Your task to perform on an android device: delete browsing data in the chrome app Image 0: 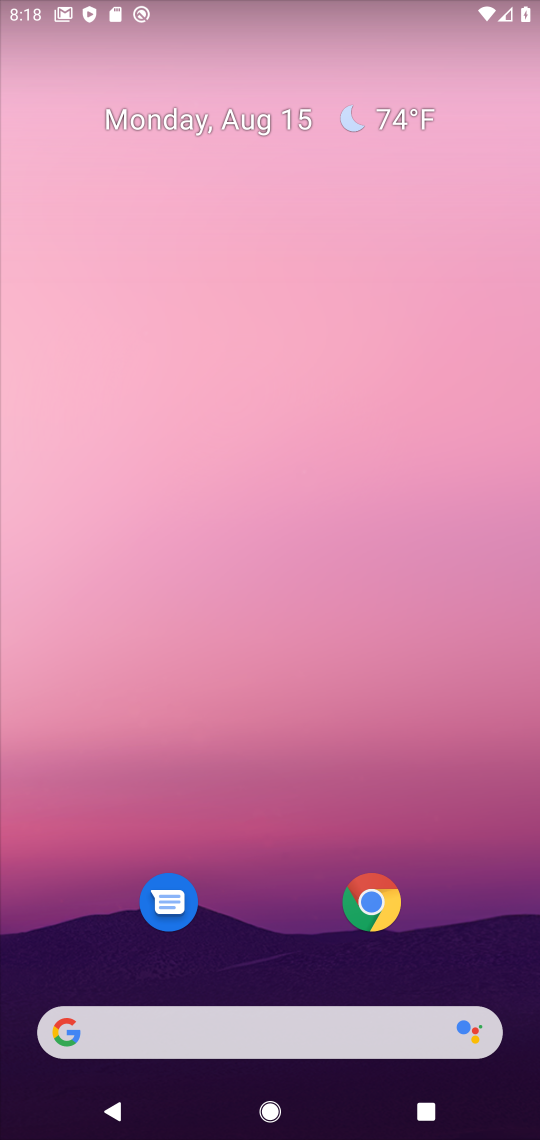
Step 0: drag from (491, 953) to (303, 62)
Your task to perform on an android device: delete browsing data in the chrome app Image 1: 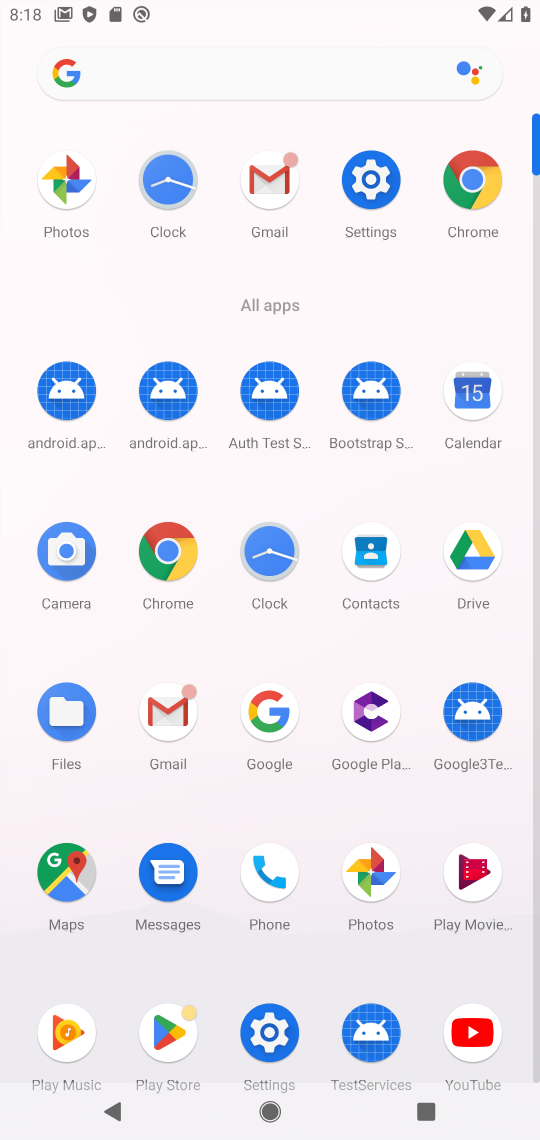
Step 1: click (155, 553)
Your task to perform on an android device: delete browsing data in the chrome app Image 2: 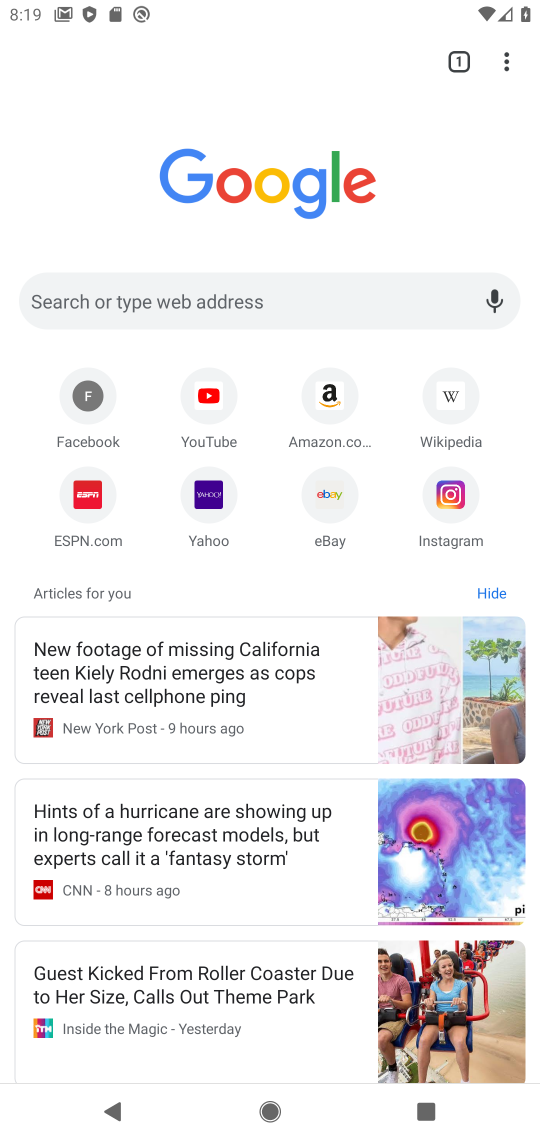
Step 2: press home button
Your task to perform on an android device: delete browsing data in the chrome app Image 3: 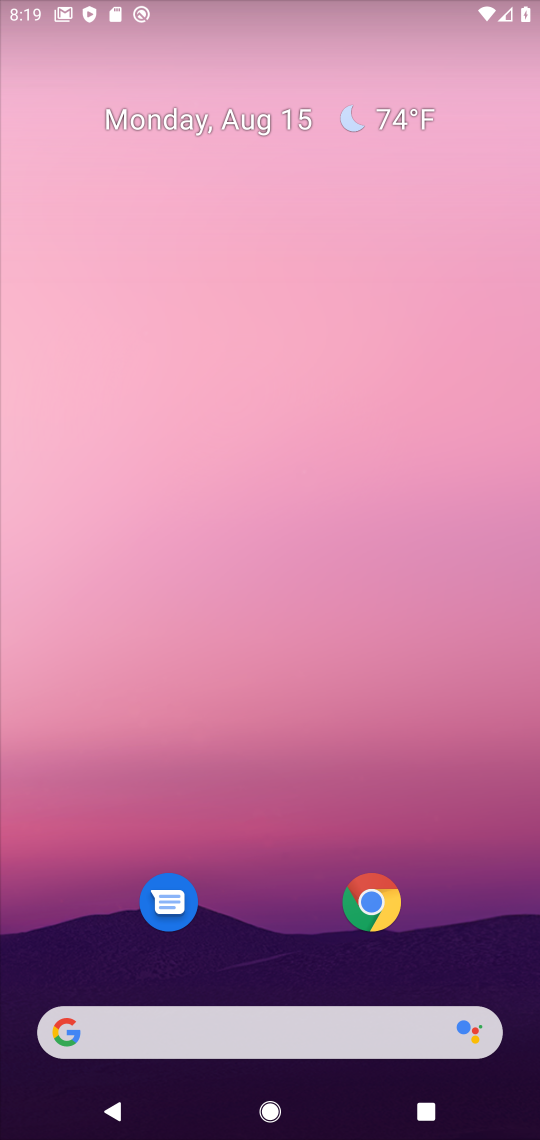
Step 3: drag from (495, 968) to (150, 82)
Your task to perform on an android device: delete browsing data in the chrome app Image 4: 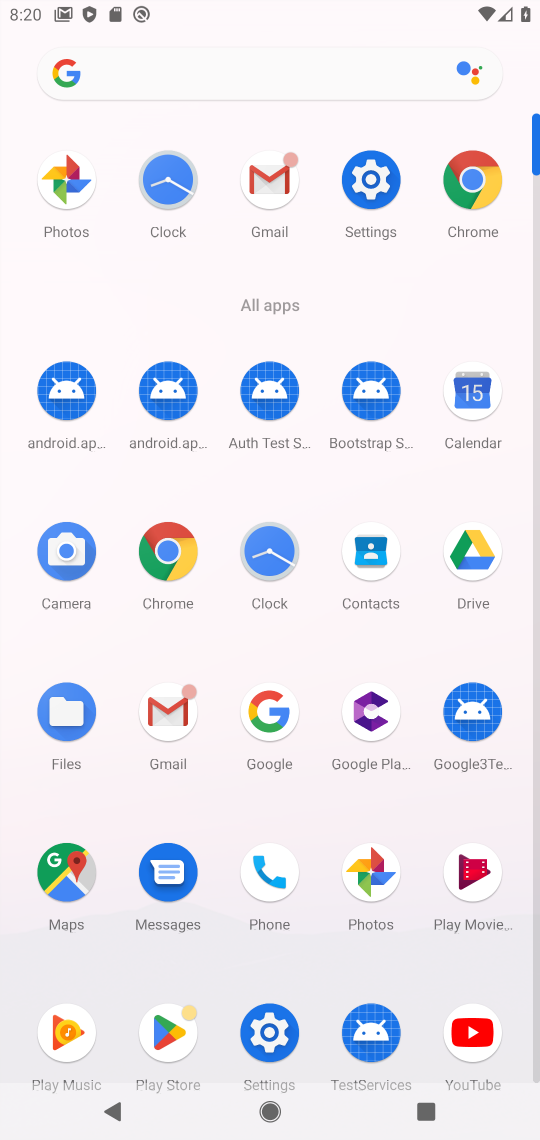
Step 4: click (464, 182)
Your task to perform on an android device: delete browsing data in the chrome app Image 5: 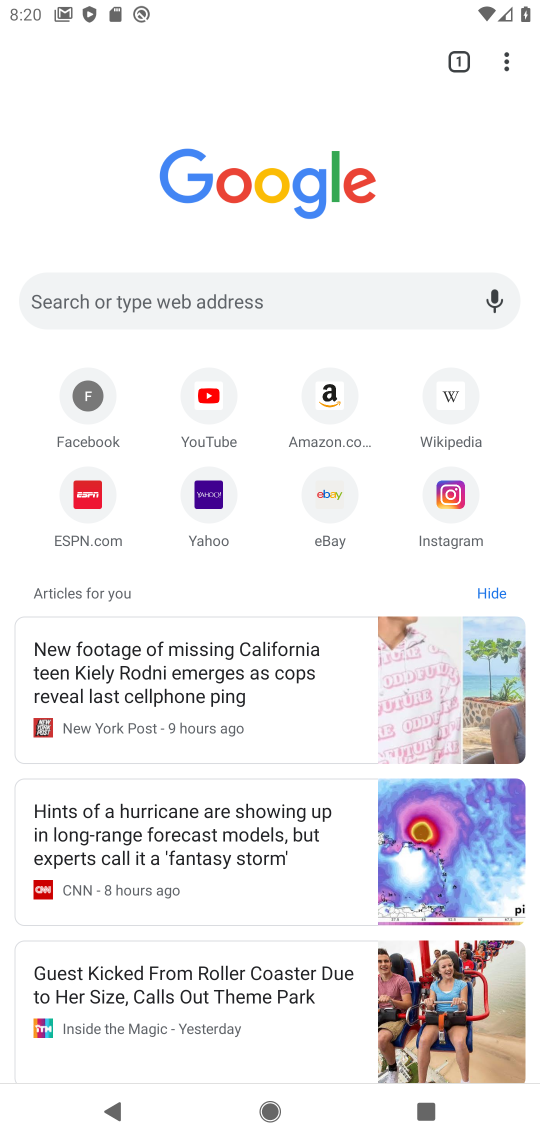
Step 5: click (504, 59)
Your task to perform on an android device: delete browsing data in the chrome app Image 6: 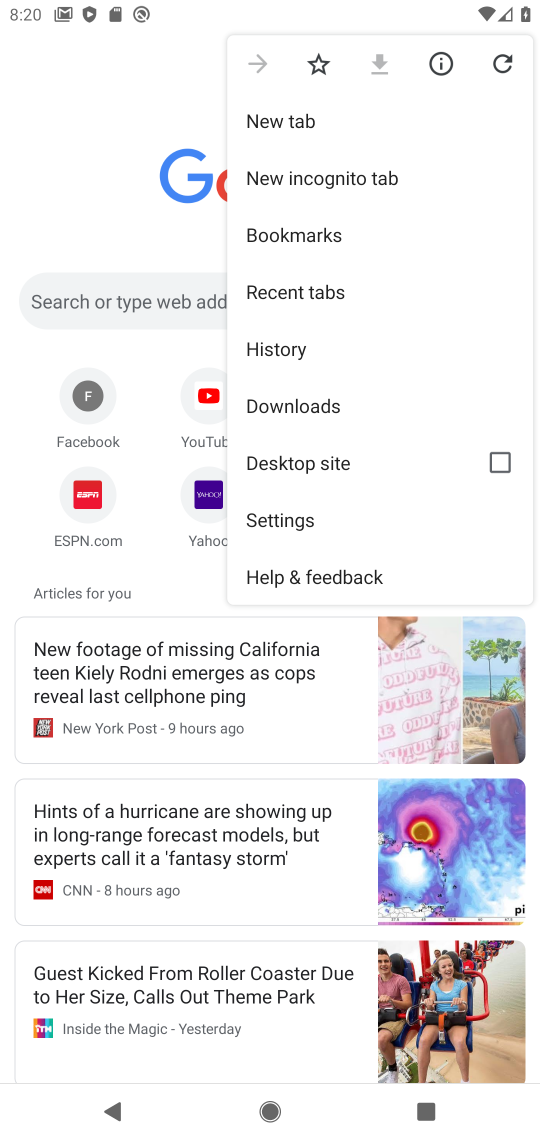
Step 6: click (280, 348)
Your task to perform on an android device: delete browsing data in the chrome app Image 7: 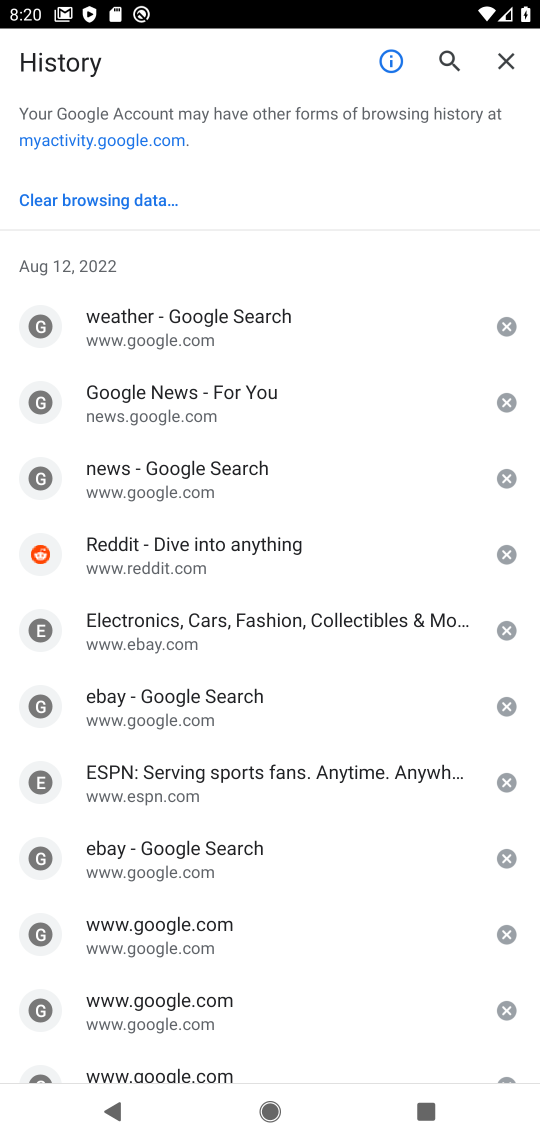
Step 7: click (126, 201)
Your task to perform on an android device: delete browsing data in the chrome app Image 8: 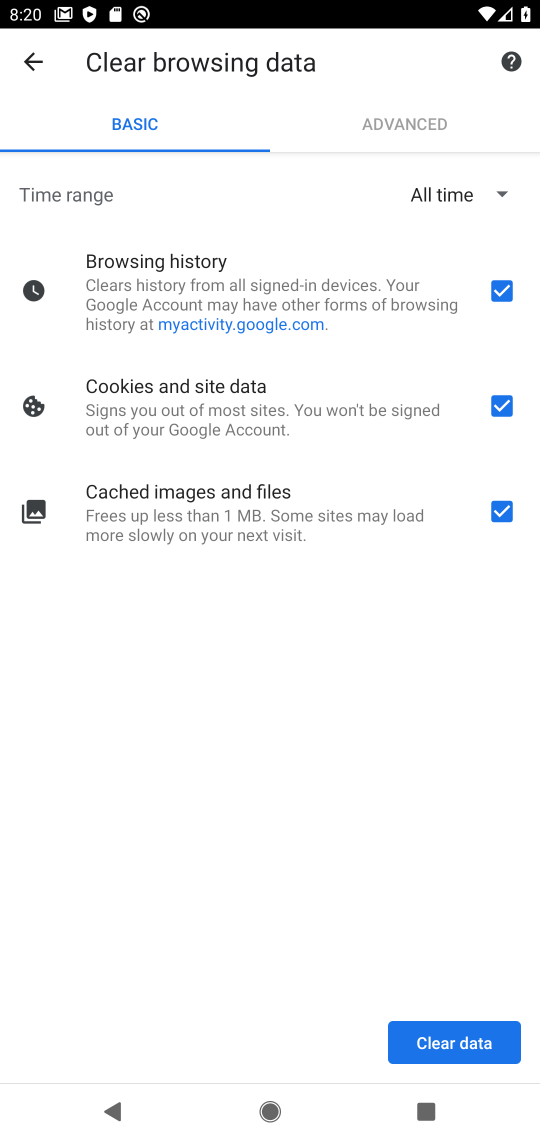
Step 8: click (417, 1042)
Your task to perform on an android device: delete browsing data in the chrome app Image 9: 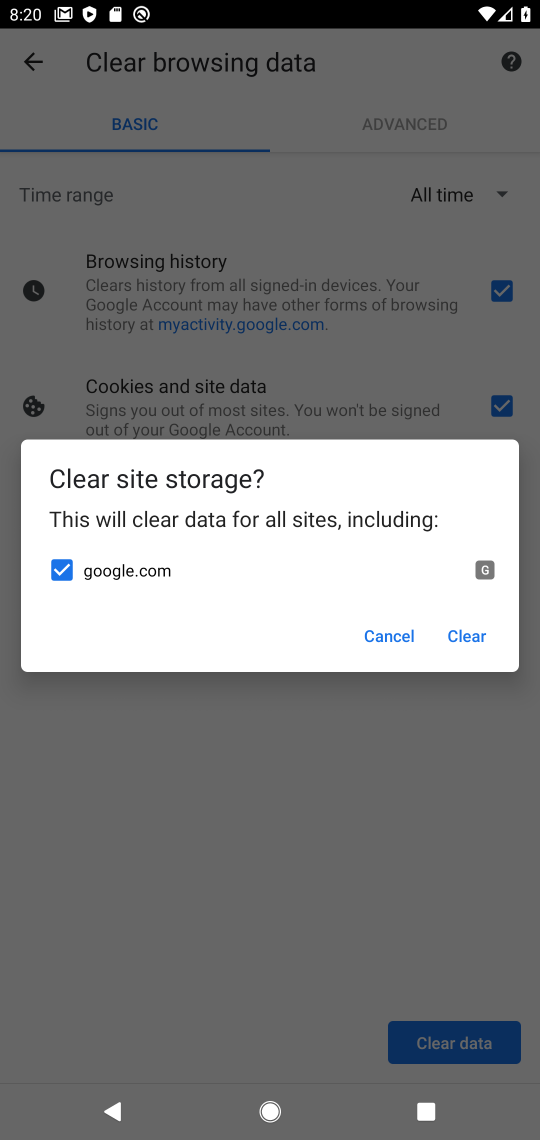
Step 9: click (462, 642)
Your task to perform on an android device: delete browsing data in the chrome app Image 10: 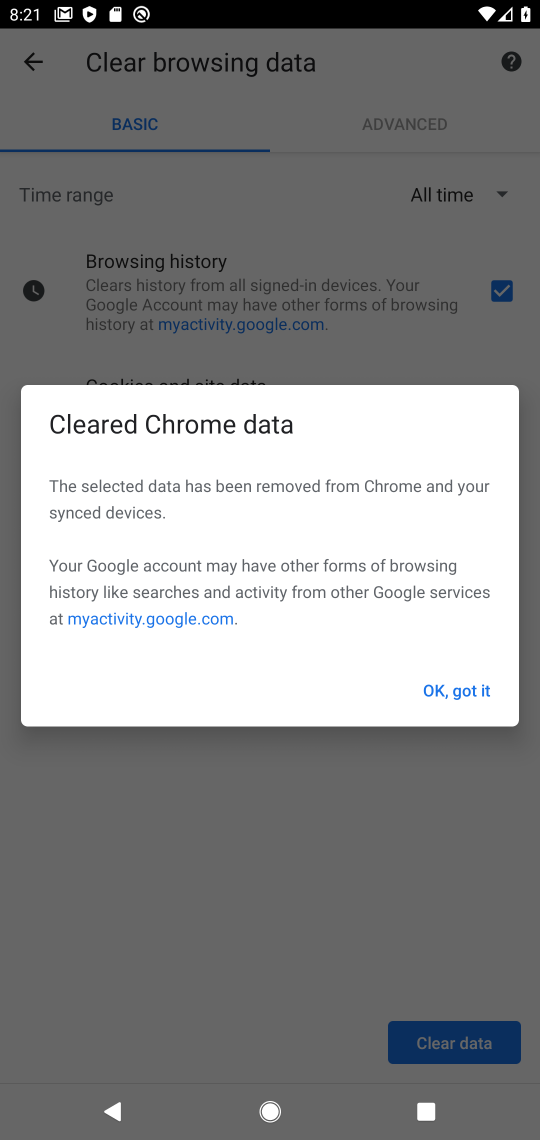
Step 10: click (464, 692)
Your task to perform on an android device: delete browsing data in the chrome app Image 11: 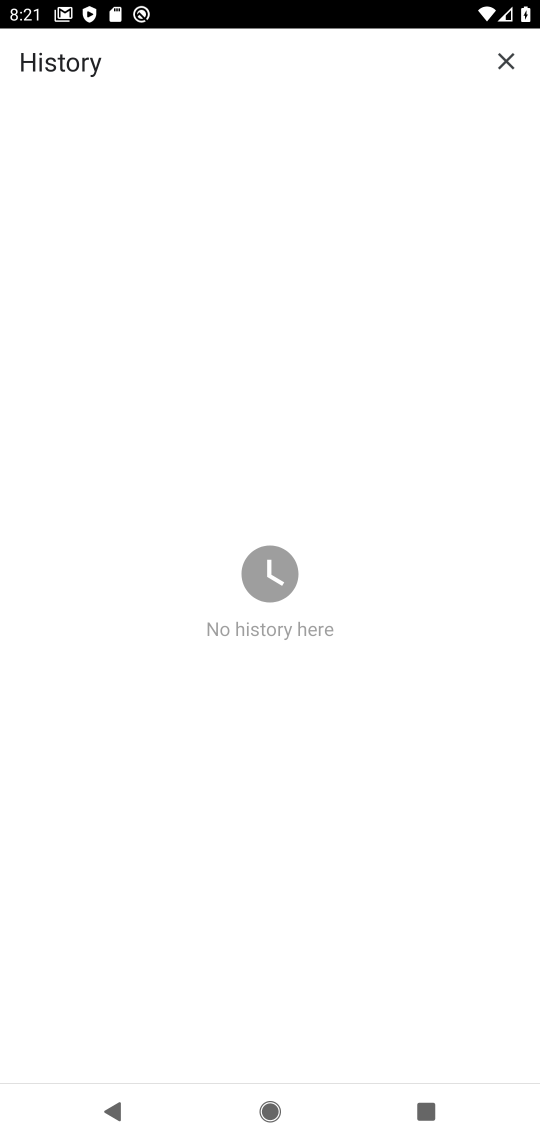
Step 11: task complete